Your task to perform on an android device: turn on wifi Image 0: 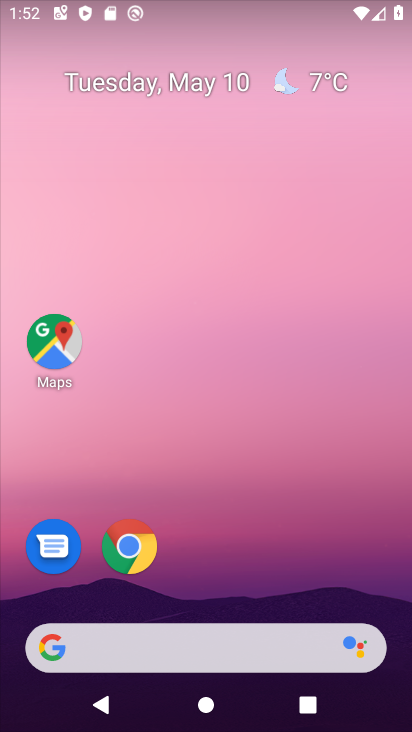
Step 0: drag from (340, 489) to (264, 70)
Your task to perform on an android device: turn on wifi Image 1: 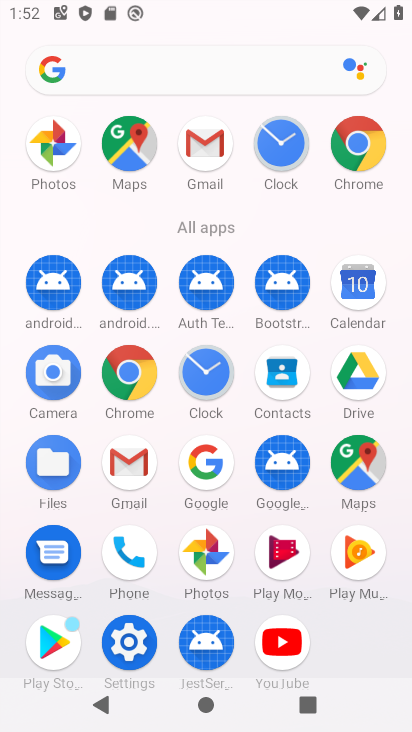
Step 1: click (141, 649)
Your task to perform on an android device: turn on wifi Image 2: 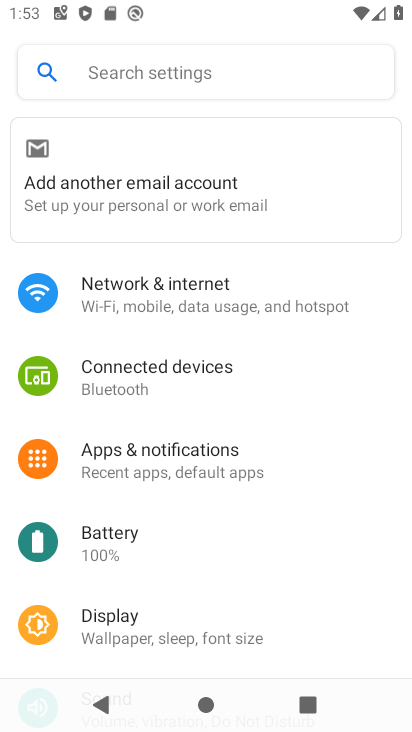
Step 2: click (162, 315)
Your task to perform on an android device: turn on wifi Image 3: 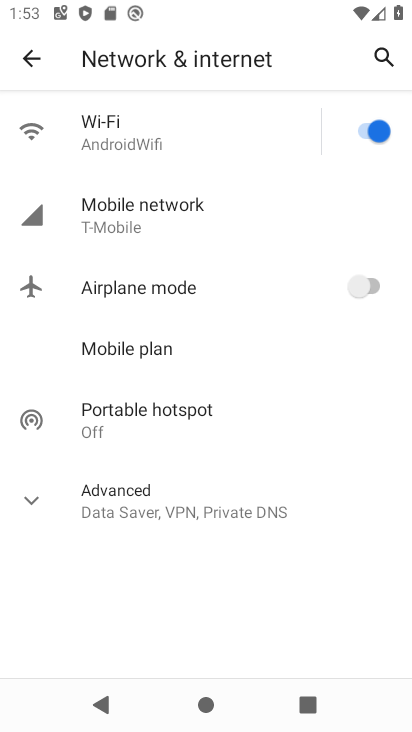
Step 3: task complete